Your task to perform on an android device: Go to Wikipedia Image 0: 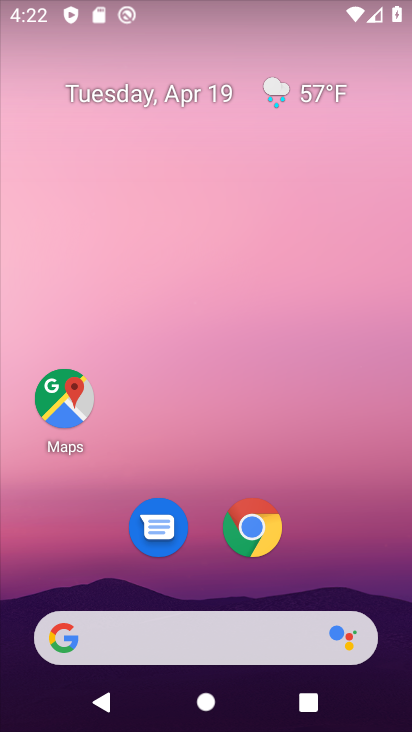
Step 0: drag from (398, 634) to (352, 218)
Your task to perform on an android device: Go to Wikipedia Image 1: 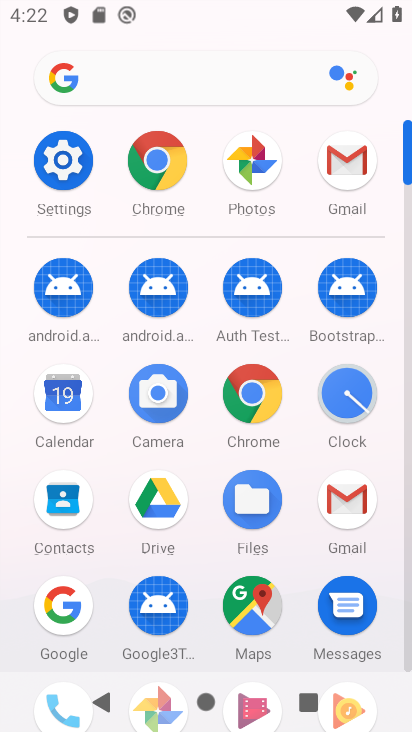
Step 1: click (405, 655)
Your task to perform on an android device: Go to Wikipedia Image 2: 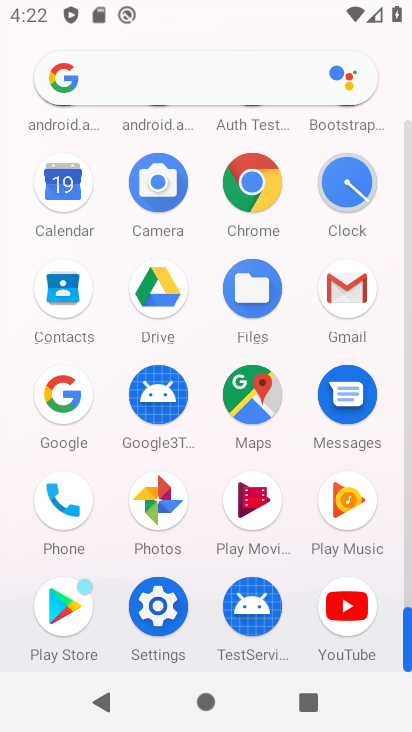
Step 2: click (253, 182)
Your task to perform on an android device: Go to Wikipedia Image 3: 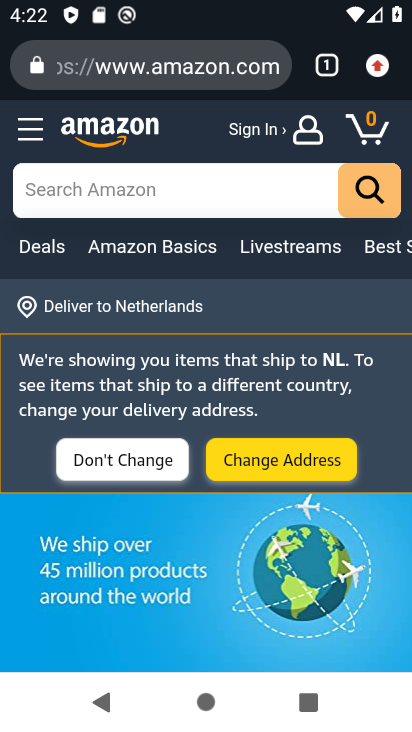
Step 3: click (372, 66)
Your task to perform on an android device: Go to Wikipedia Image 4: 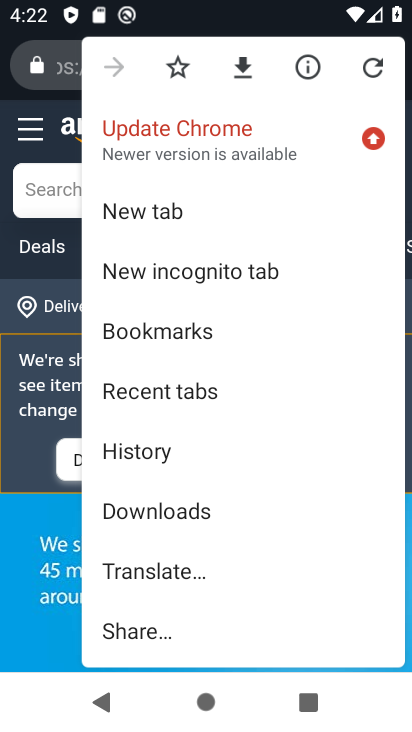
Step 4: click (140, 216)
Your task to perform on an android device: Go to Wikipedia Image 5: 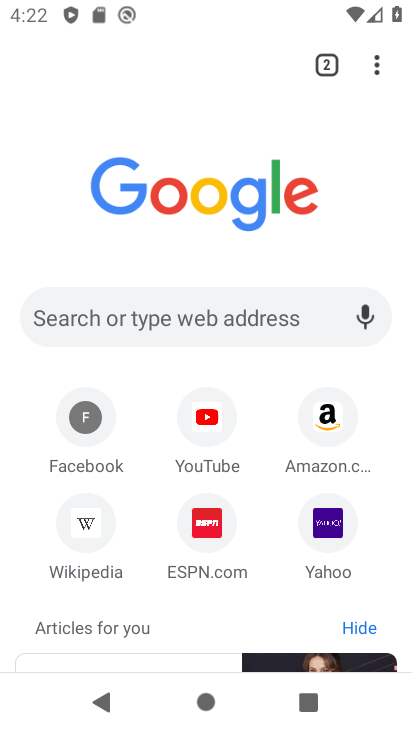
Step 5: click (87, 522)
Your task to perform on an android device: Go to Wikipedia Image 6: 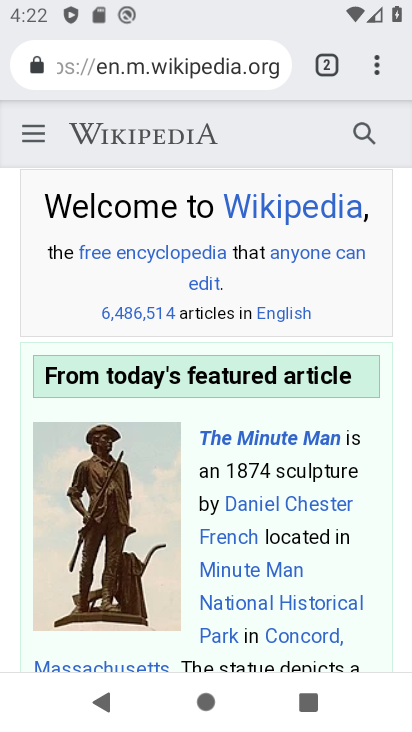
Step 6: task complete